Your task to perform on an android device: find photos in the google photos app Image 0: 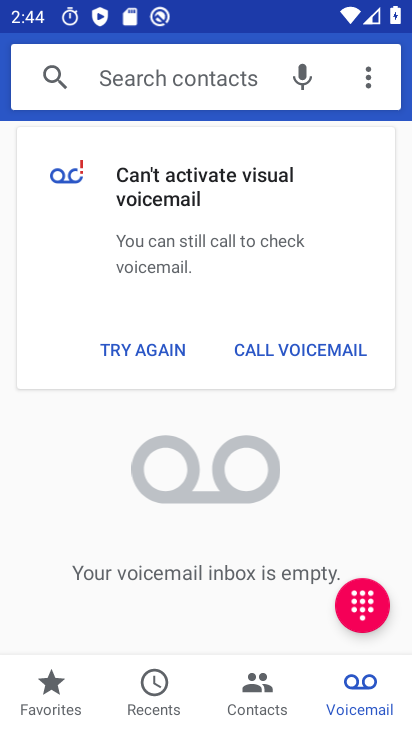
Step 0: press home button
Your task to perform on an android device: find photos in the google photos app Image 1: 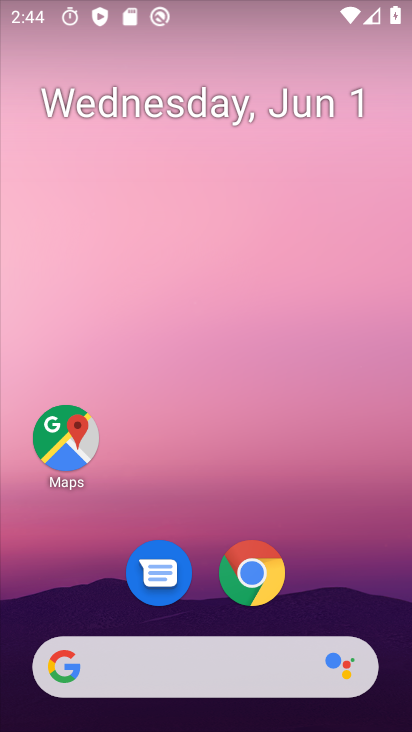
Step 1: drag from (195, 630) to (206, 250)
Your task to perform on an android device: find photos in the google photos app Image 2: 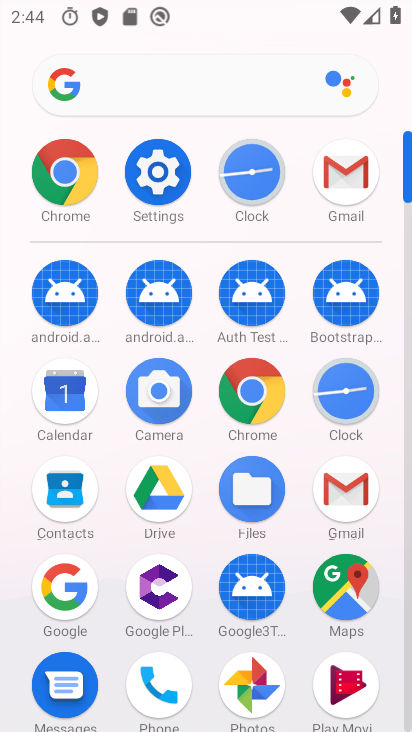
Step 2: click (242, 665)
Your task to perform on an android device: find photos in the google photos app Image 3: 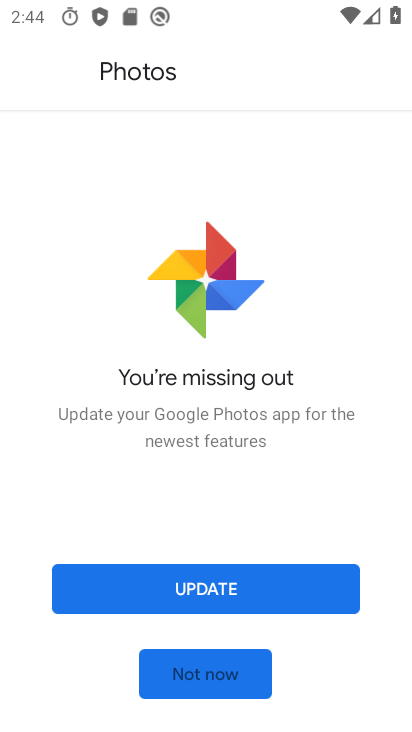
Step 3: click (214, 667)
Your task to perform on an android device: find photos in the google photos app Image 4: 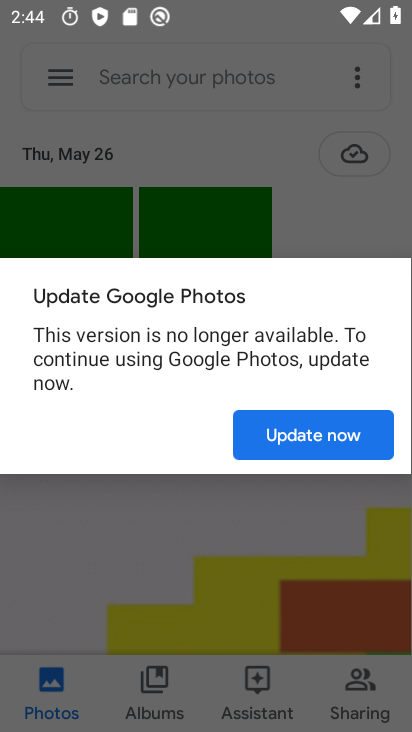
Step 4: click (294, 439)
Your task to perform on an android device: find photos in the google photos app Image 5: 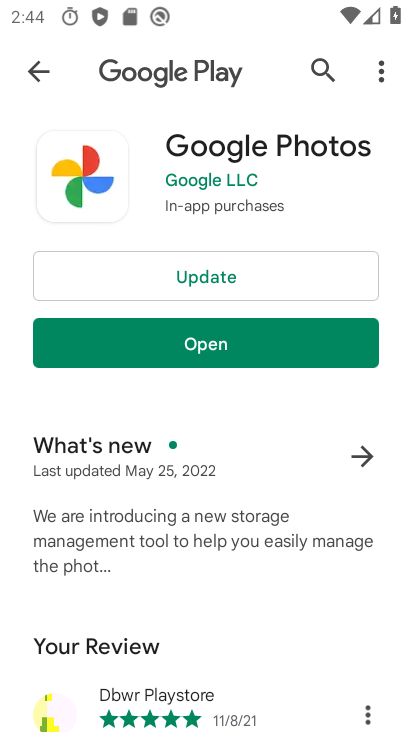
Step 5: click (268, 354)
Your task to perform on an android device: find photos in the google photos app Image 6: 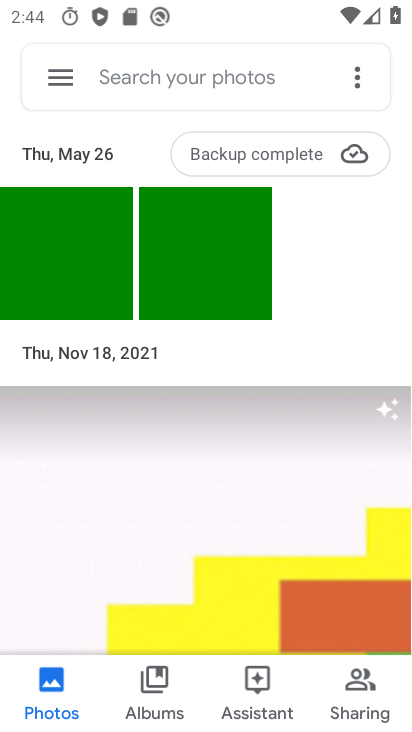
Step 6: click (181, 83)
Your task to perform on an android device: find photos in the google photos app Image 7: 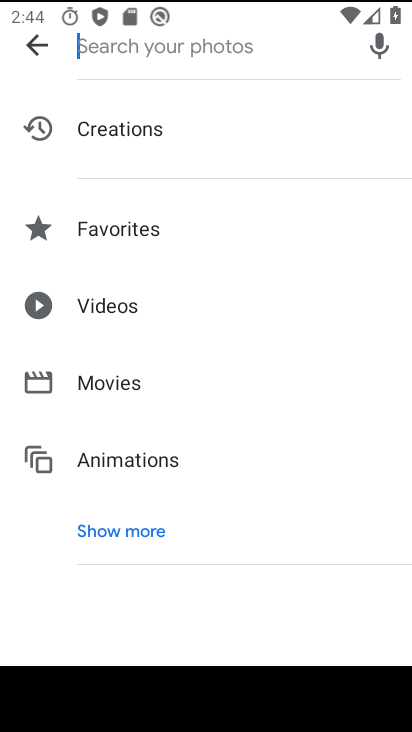
Step 7: type "aa"
Your task to perform on an android device: find photos in the google photos app Image 8: 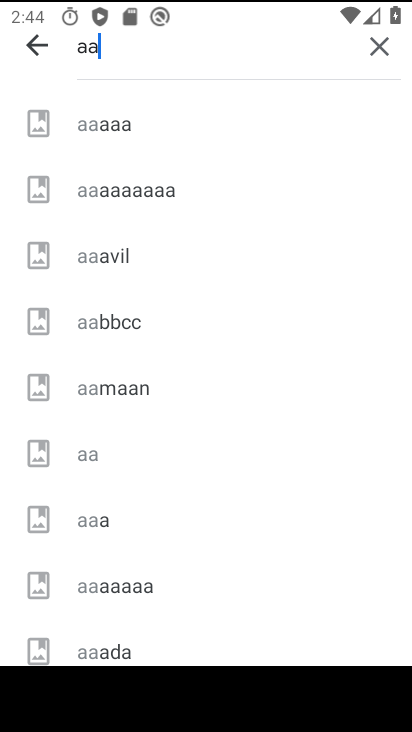
Step 8: click (135, 133)
Your task to perform on an android device: find photos in the google photos app Image 9: 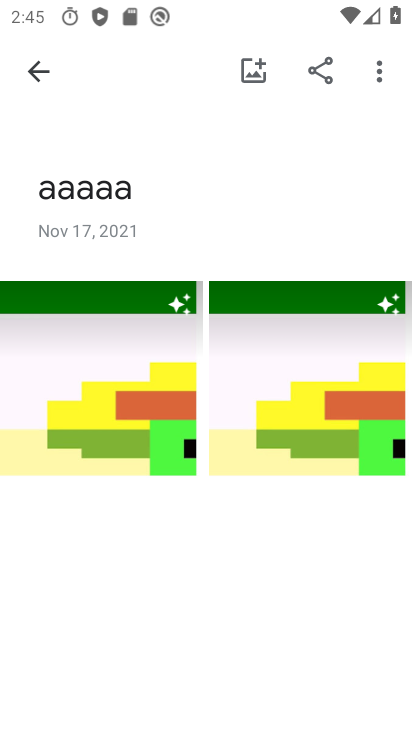
Step 9: task complete